Your task to perform on an android device: Open the Play Movies app and select the watchlist tab. Image 0: 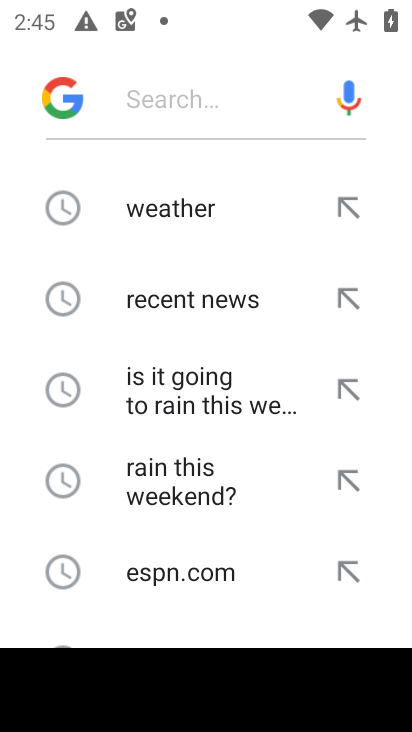
Step 0: press home button
Your task to perform on an android device: Open the Play Movies app and select the watchlist tab. Image 1: 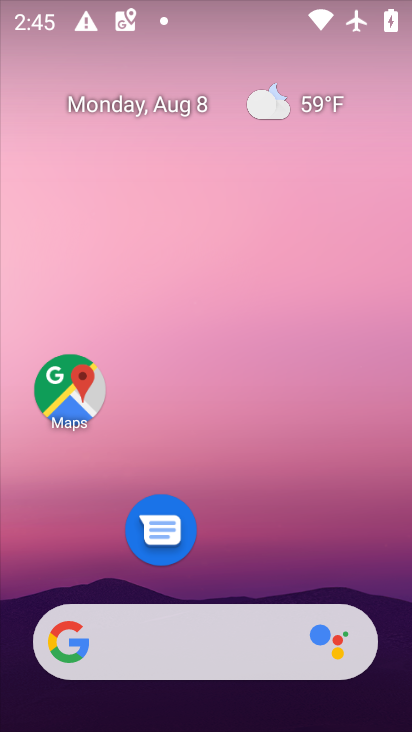
Step 1: drag from (242, 597) to (221, 282)
Your task to perform on an android device: Open the Play Movies app and select the watchlist tab. Image 2: 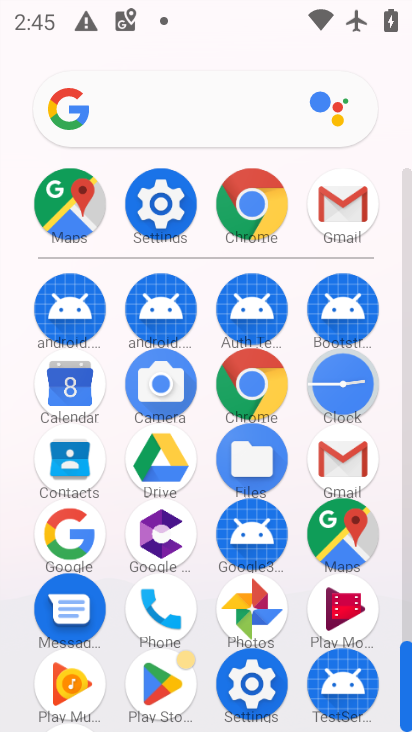
Step 2: click (341, 609)
Your task to perform on an android device: Open the Play Movies app and select the watchlist tab. Image 3: 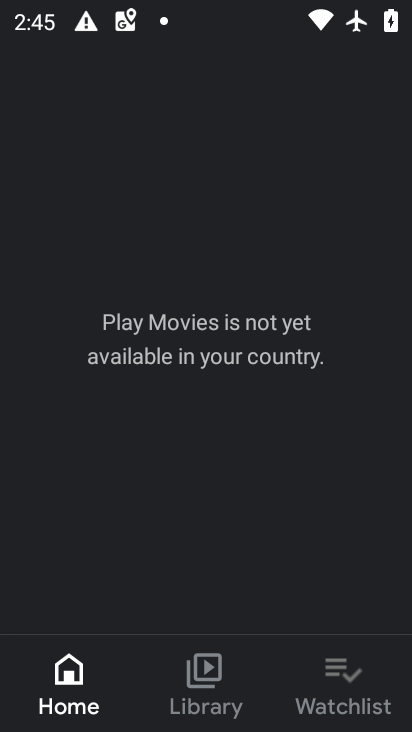
Step 3: click (347, 694)
Your task to perform on an android device: Open the Play Movies app and select the watchlist tab. Image 4: 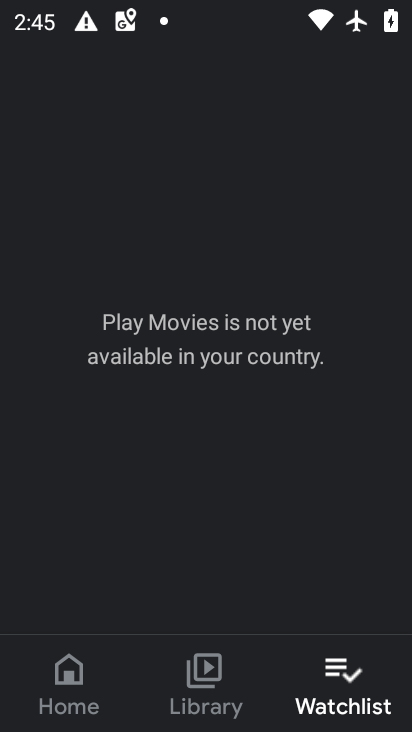
Step 4: task complete